Your task to perform on an android device: check out phone information Image 0: 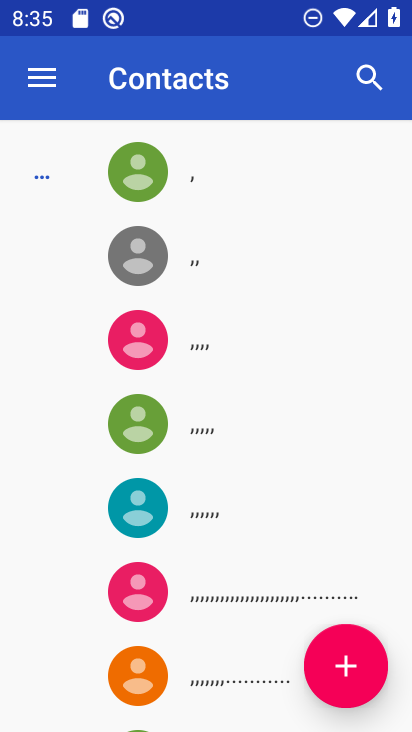
Step 0: press home button
Your task to perform on an android device: check out phone information Image 1: 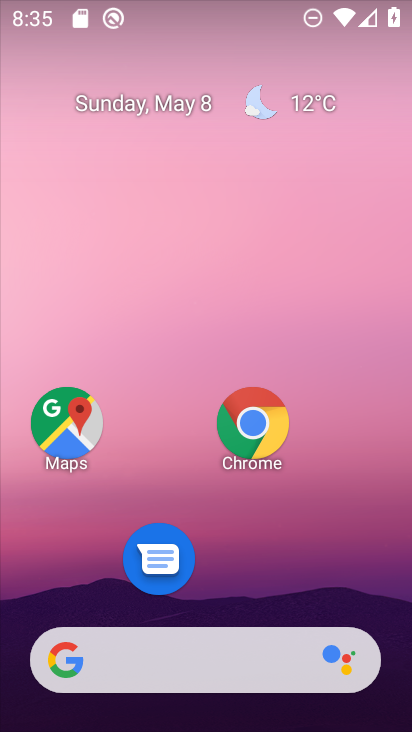
Step 1: drag from (353, 617) to (373, 16)
Your task to perform on an android device: check out phone information Image 2: 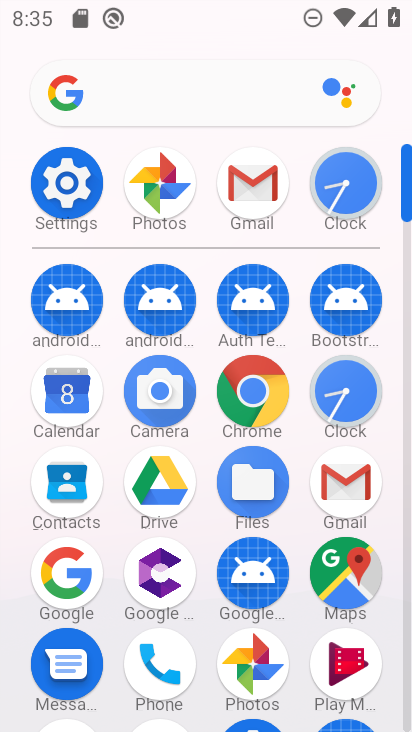
Step 2: click (70, 186)
Your task to perform on an android device: check out phone information Image 3: 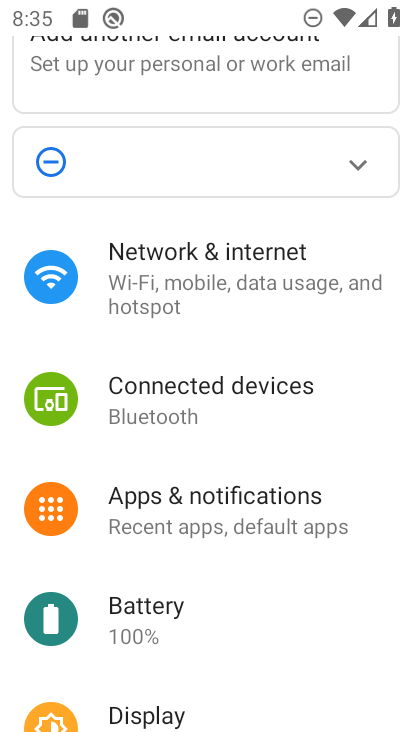
Step 3: drag from (230, 580) to (258, 6)
Your task to perform on an android device: check out phone information Image 4: 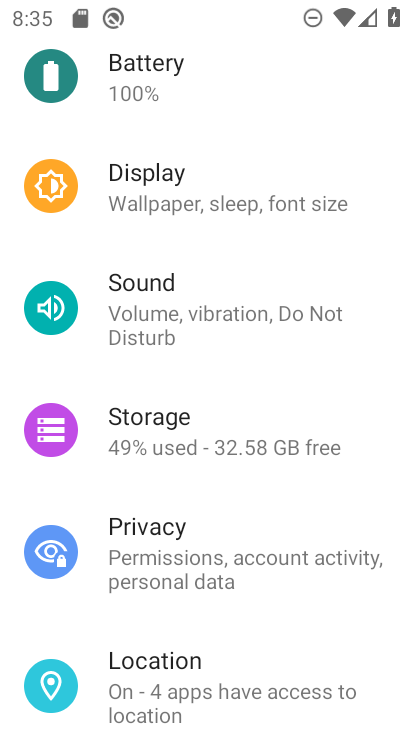
Step 4: drag from (237, 592) to (266, 7)
Your task to perform on an android device: check out phone information Image 5: 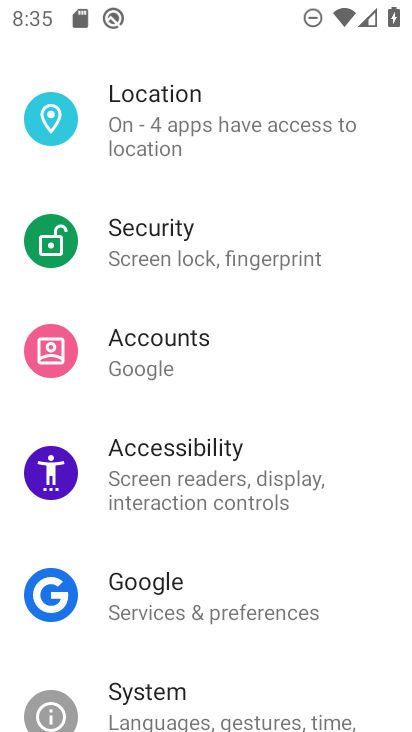
Step 5: drag from (220, 657) to (218, 120)
Your task to perform on an android device: check out phone information Image 6: 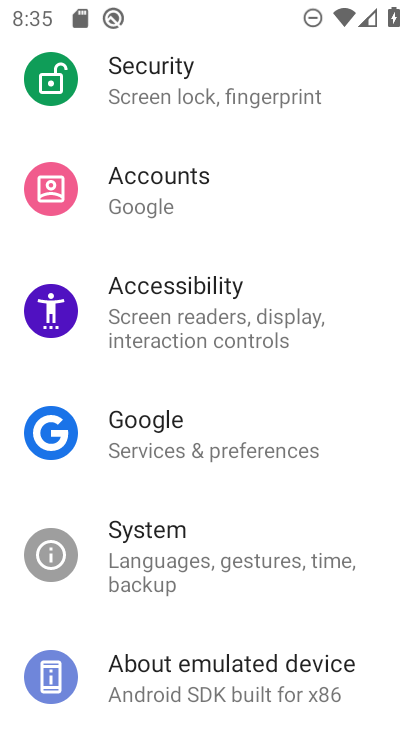
Step 6: click (219, 678)
Your task to perform on an android device: check out phone information Image 7: 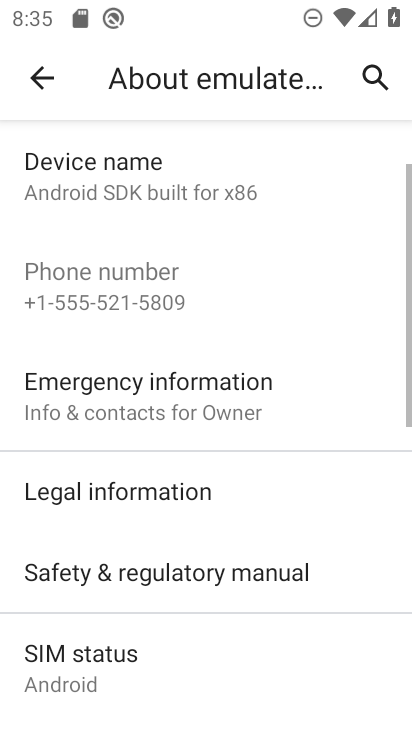
Step 7: task complete